Your task to perform on an android device: turn off notifications settings in the gmail app Image 0: 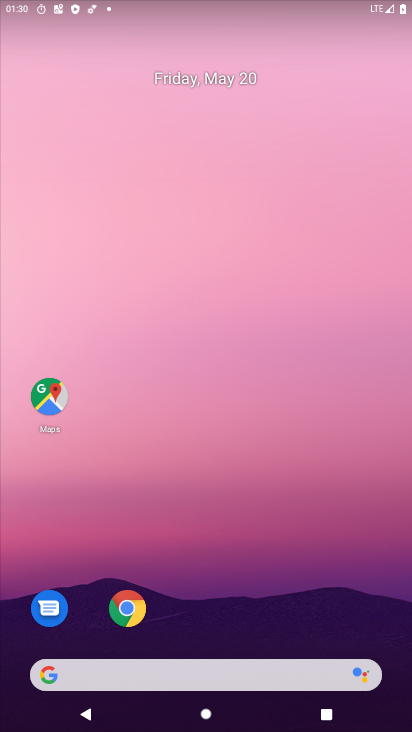
Step 0: drag from (323, 613) to (249, 99)
Your task to perform on an android device: turn off notifications settings in the gmail app Image 1: 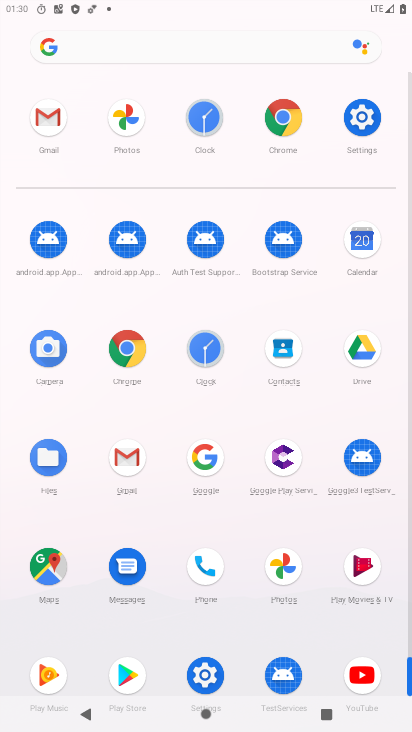
Step 1: click (119, 463)
Your task to perform on an android device: turn off notifications settings in the gmail app Image 2: 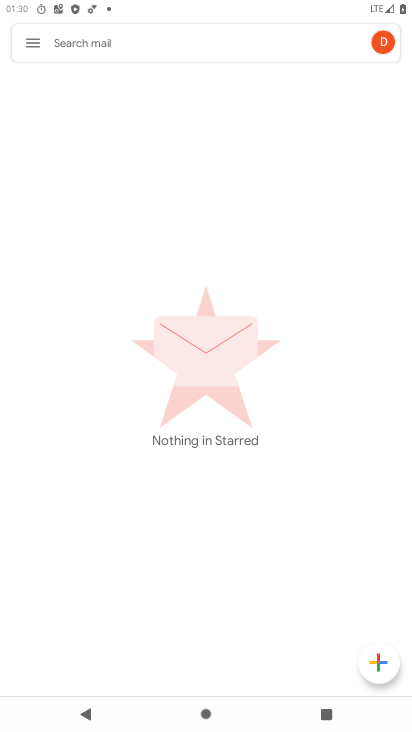
Step 2: click (26, 45)
Your task to perform on an android device: turn off notifications settings in the gmail app Image 3: 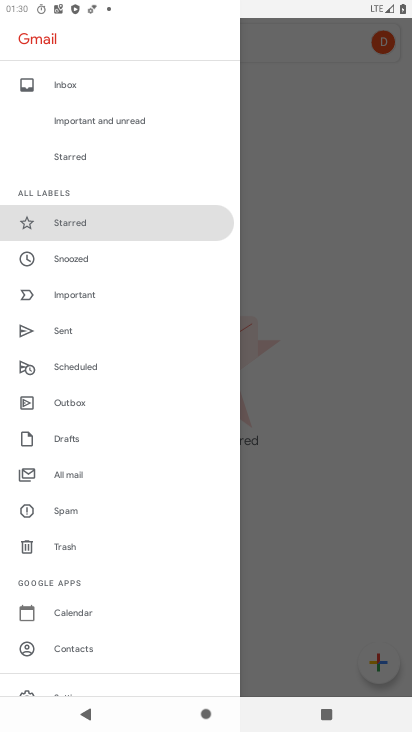
Step 3: drag from (121, 640) to (162, 377)
Your task to perform on an android device: turn off notifications settings in the gmail app Image 4: 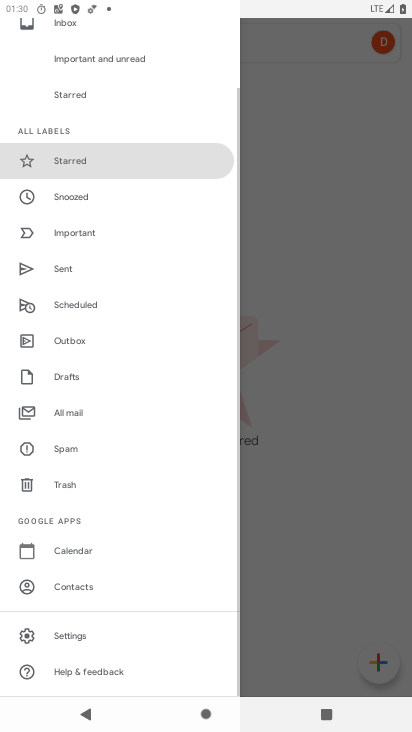
Step 4: click (110, 633)
Your task to perform on an android device: turn off notifications settings in the gmail app Image 5: 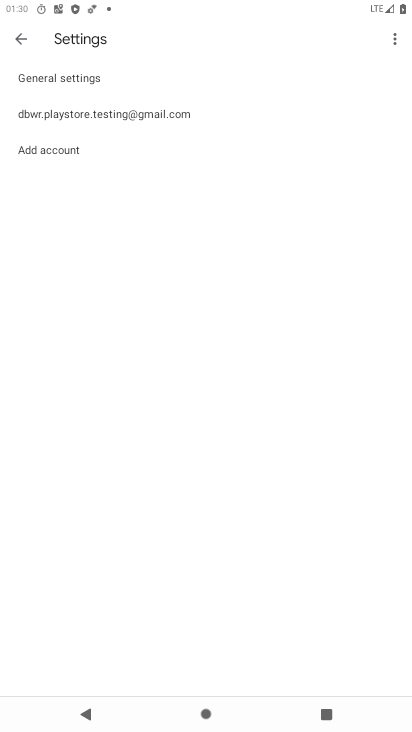
Step 5: click (130, 119)
Your task to perform on an android device: turn off notifications settings in the gmail app Image 6: 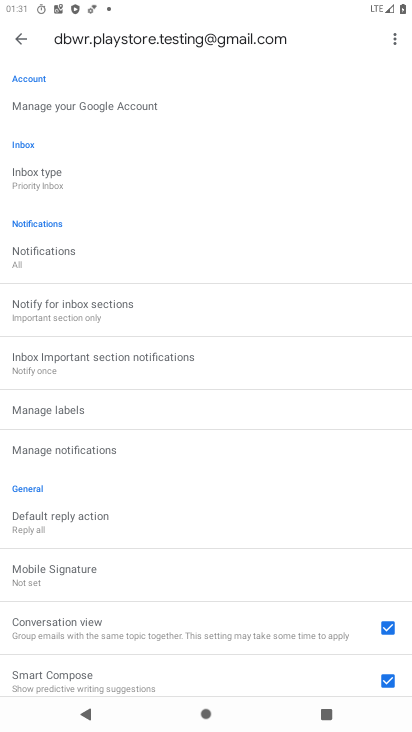
Step 6: click (84, 261)
Your task to perform on an android device: turn off notifications settings in the gmail app Image 7: 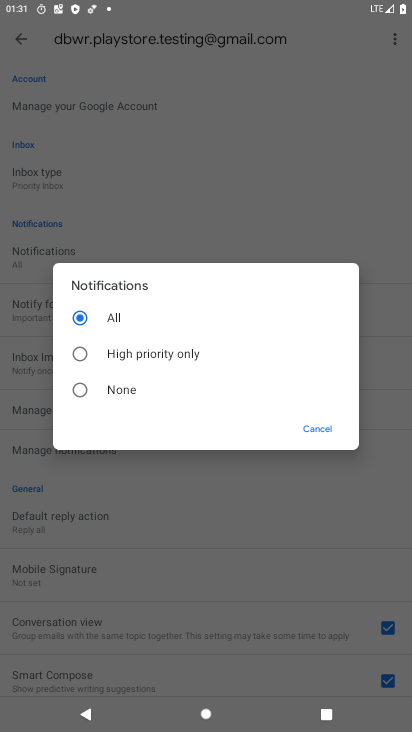
Step 7: click (77, 389)
Your task to perform on an android device: turn off notifications settings in the gmail app Image 8: 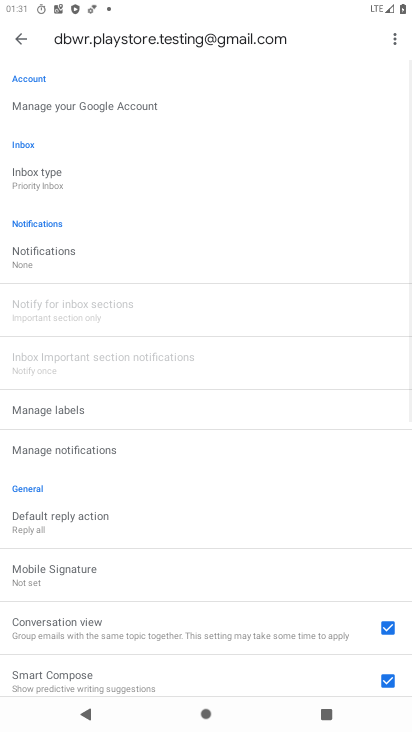
Step 8: task complete